Your task to perform on an android device: change notifications settings Image 0: 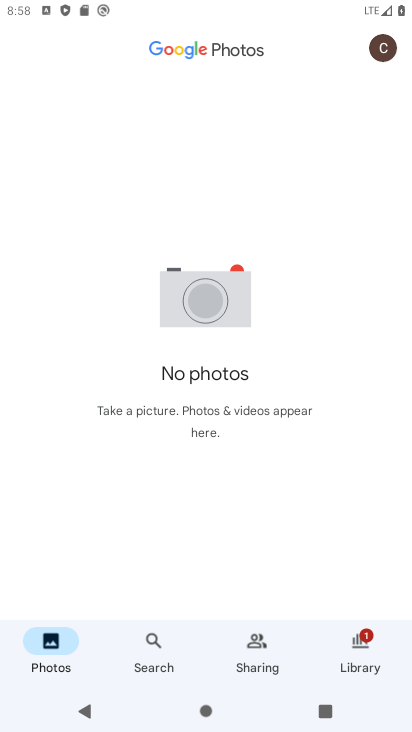
Step 0: press home button
Your task to perform on an android device: change notifications settings Image 1: 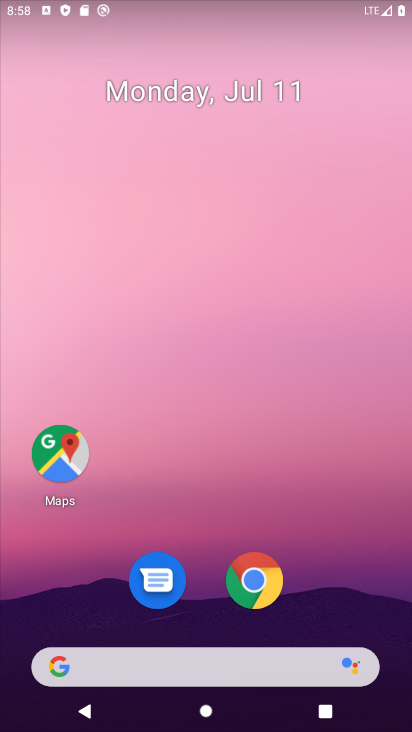
Step 1: drag from (239, 500) to (280, 22)
Your task to perform on an android device: change notifications settings Image 2: 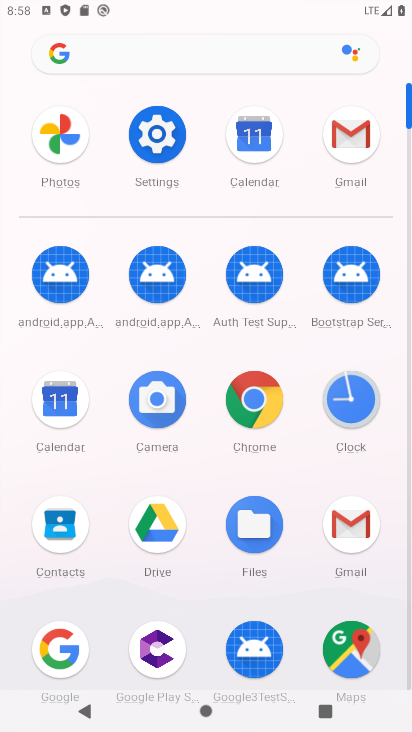
Step 2: click (147, 139)
Your task to perform on an android device: change notifications settings Image 3: 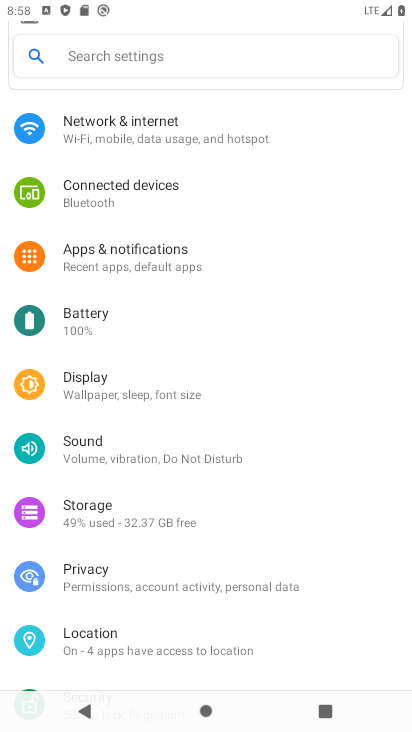
Step 3: click (168, 256)
Your task to perform on an android device: change notifications settings Image 4: 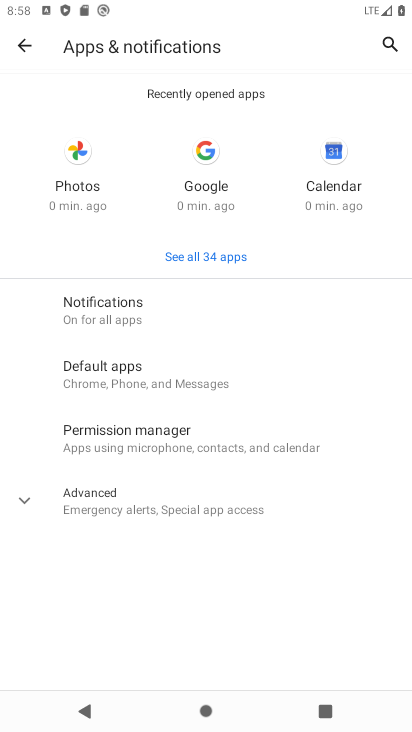
Step 4: click (134, 309)
Your task to perform on an android device: change notifications settings Image 5: 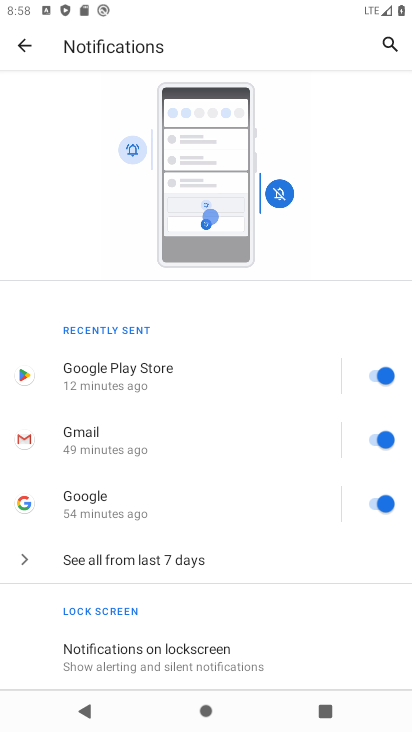
Step 5: click (198, 558)
Your task to perform on an android device: change notifications settings Image 6: 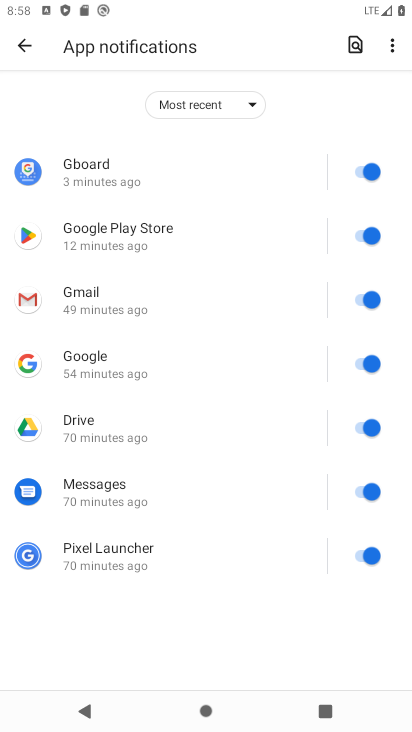
Step 6: click (370, 168)
Your task to perform on an android device: change notifications settings Image 7: 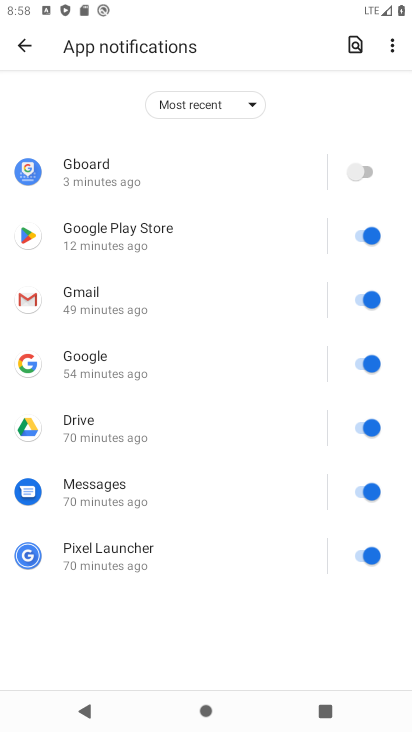
Step 7: click (368, 241)
Your task to perform on an android device: change notifications settings Image 8: 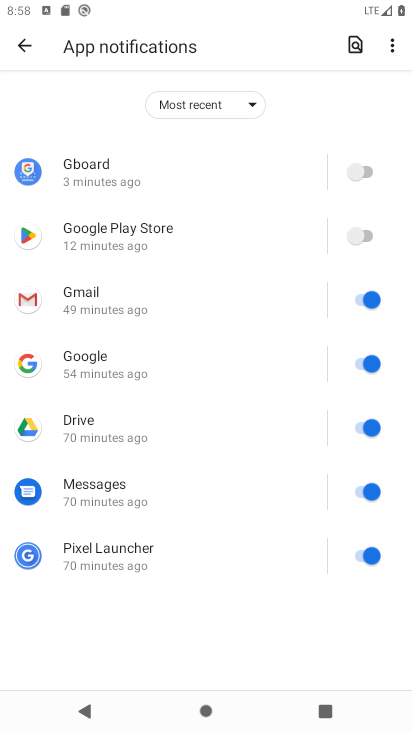
Step 8: click (371, 299)
Your task to perform on an android device: change notifications settings Image 9: 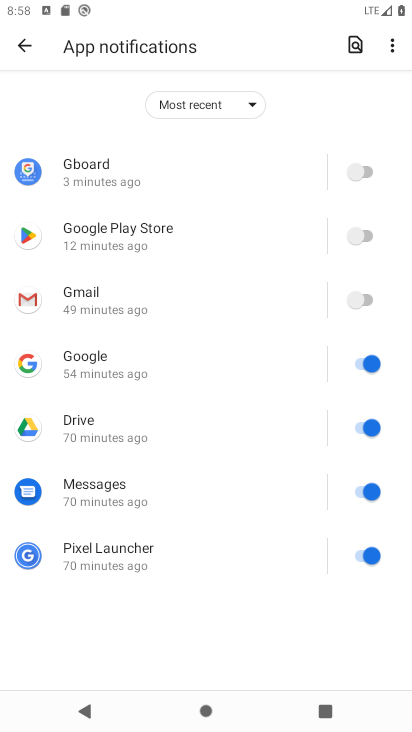
Step 9: click (365, 360)
Your task to perform on an android device: change notifications settings Image 10: 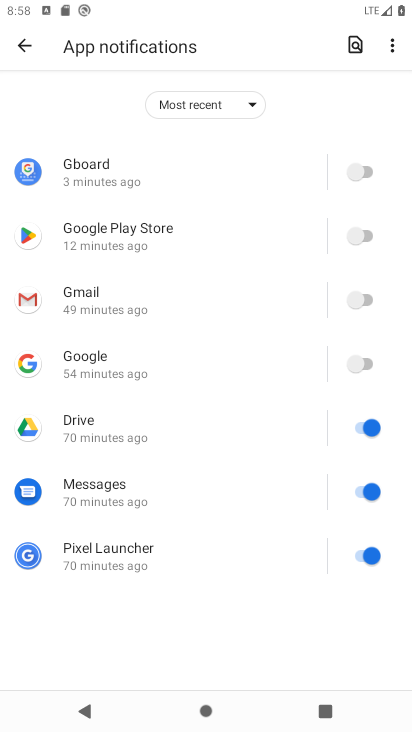
Step 10: click (370, 427)
Your task to perform on an android device: change notifications settings Image 11: 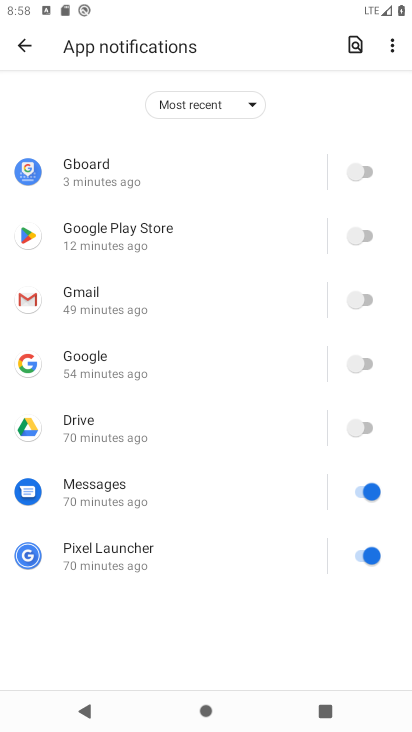
Step 11: click (368, 485)
Your task to perform on an android device: change notifications settings Image 12: 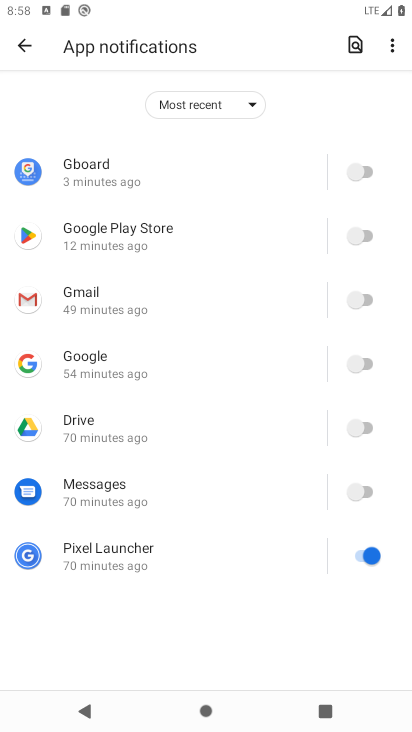
Step 12: click (365, 552)
Your task to perform on an android device: change notifications settings Image 13: 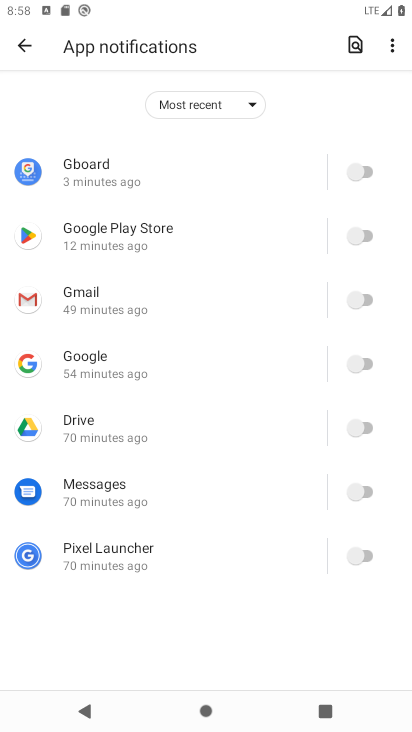
Step 13: task complete